Your task to perform on an android device: turn off sleep mode Image 0: 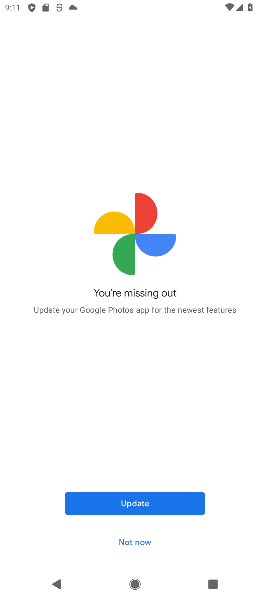
Step 0: drag from (139, 517) to (192, 190)
Your task to perform on an android device: turn off sleep mode Image 1: 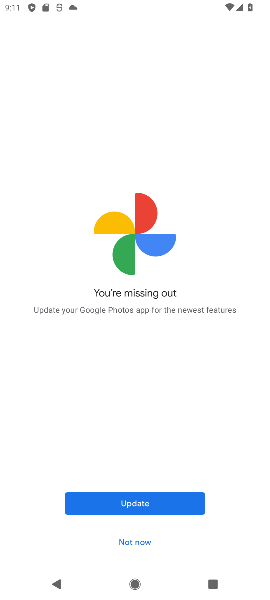
Step 1: drag from (174, 381) to (224, 167)
Your task to perform on an android device: turn off sleep mode Image 2: 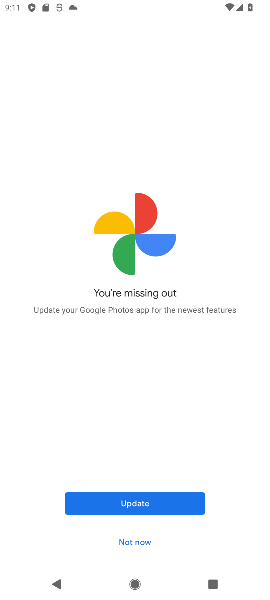
Step 2: press home button
Your task to perform on an android device: turn off sleep mode Image 3: 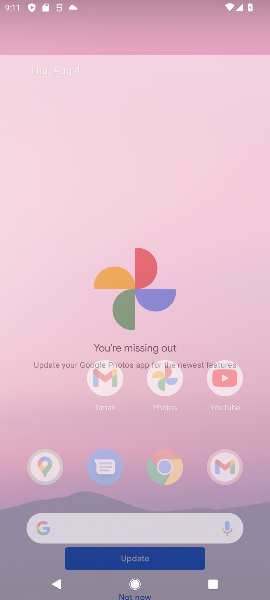
Step 3: drag from (160, 530) to (186, 66)
Your task to perform on an android device: turn off sleep mode Image 4: 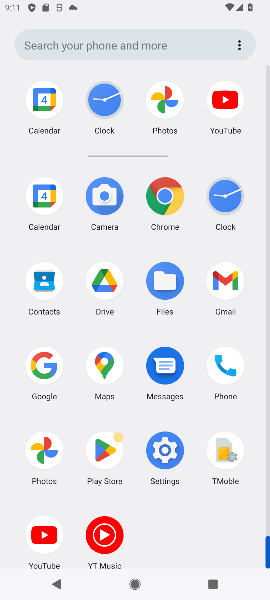
Step 4: click (161, 450)
Your task to perform on an android device: turn off sleep mode Image 5: 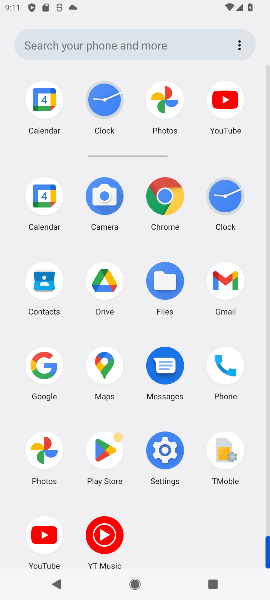
Step 5: click (161, 450)
Your task to perform on an android device: turn off sleep mode Image 6: 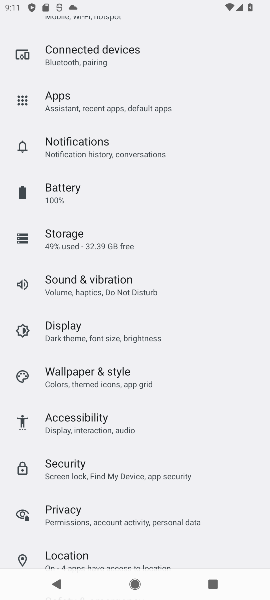
Step 6: drag from (87, 243) to (169, 598)
Your task to perform on an android device: turn off sleep mode Image 7: 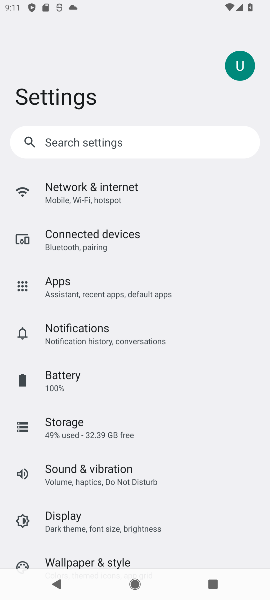
Step 7: drag from (148, 454) to (153, 408)
Your task to perform on an android device: turn off sleep mode Image 8: 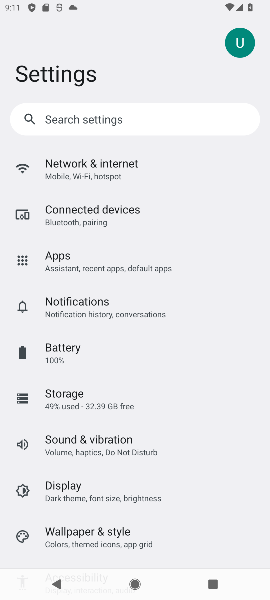
Step 8: click (66, 496)
Your task to perform on an android device: turn off sleep mode Image 9: 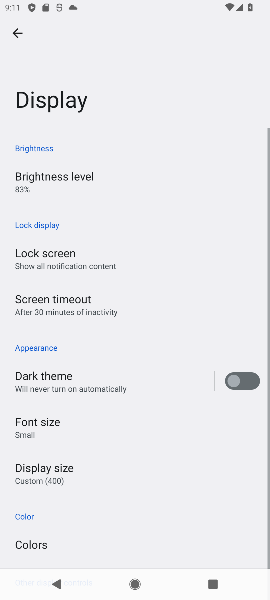
Step 9: drag from (145, 481) to (159, 190)
Your task to perform on an android device: turn off sleep mode Image 10: 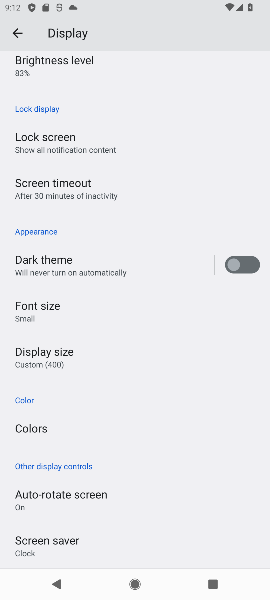
Step 10: click (68, 193)
Your task to perform on an android device: turn off sleep mode Image 11: 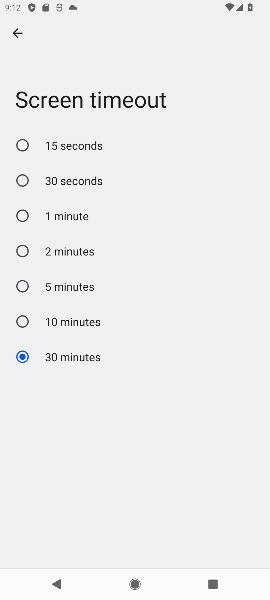
Step 11: click (61, 149)
Your task to perform on an android device: turn off sleep mode Image 12: 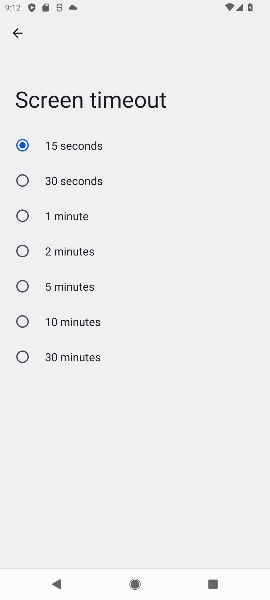
Step 12: task complete